Your task to perform on an android device: Search for Mexican restaurants on Maps Image 0: 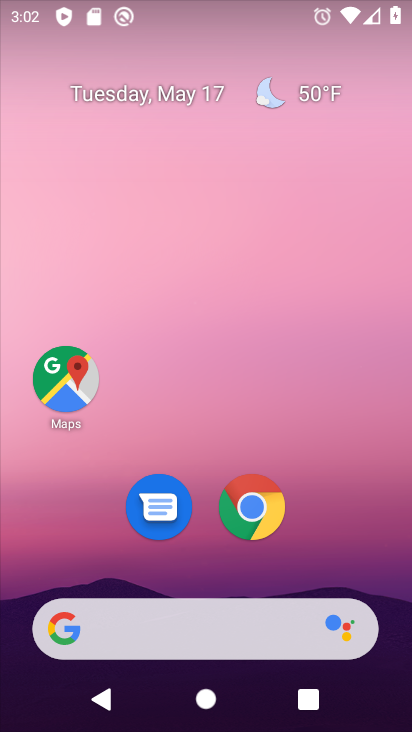
Step 0: click (64, 373)
Your task to perform on an android device: Search for Mexican restaurants on Maps Image 1: 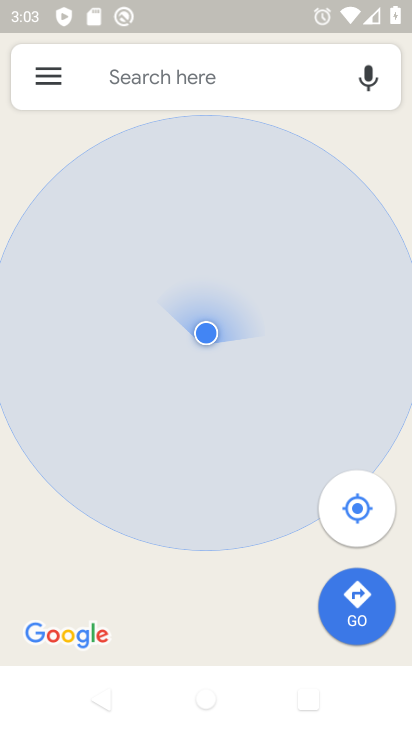
Step 1: click (169, 82)
Your task to perform on an android device: Search for Mexican restaurants on Maps Image 2: 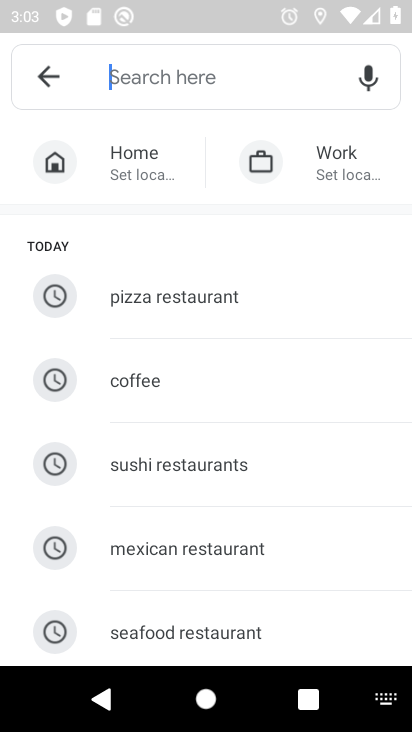
Step 2: click (213, 548)
Your task to perform on an android device: Search for Mexican restaurants on Maps Image 3: 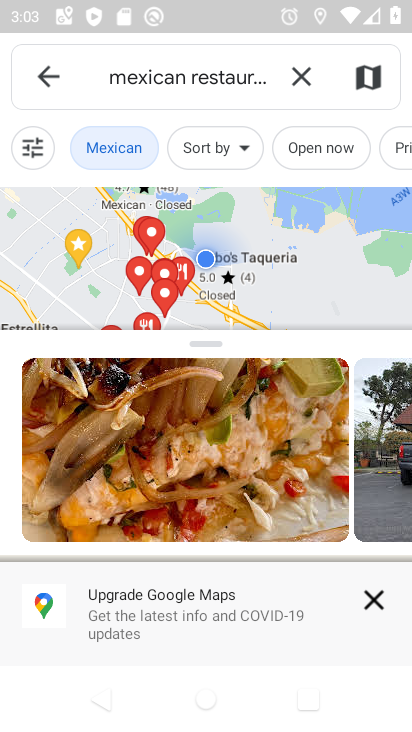
Step 3: task complete